Your task to perform on an android device: turn off notifications settings in the gmail app Image 0: 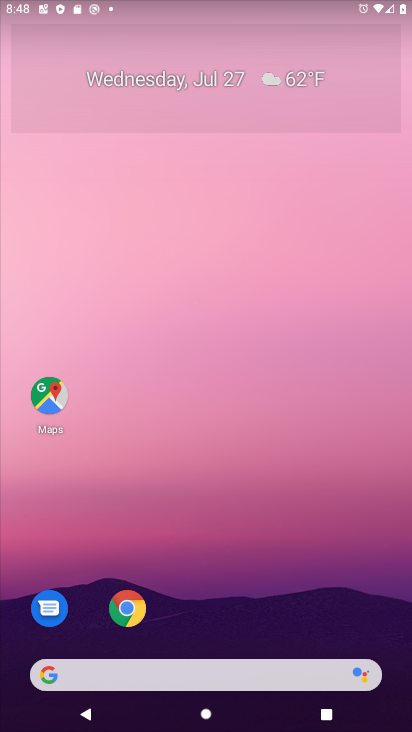
Step 0: drag from (253, 575) to (298, 1)
Your task to perform on an android device: turn off notifications settings in the gmail app Image 1: 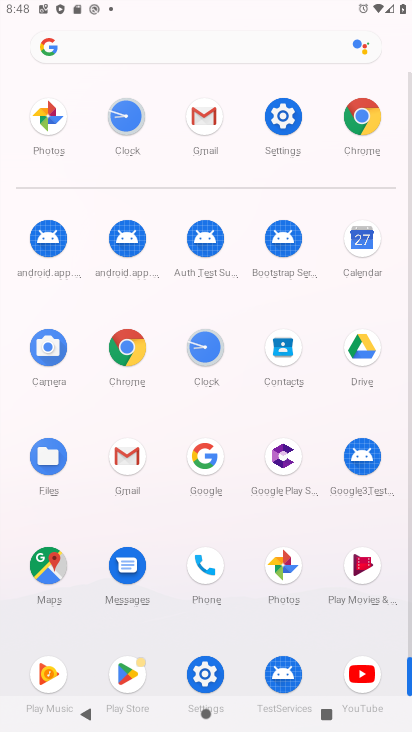
Step 1: click (202, 126)
Your task to perform on an android device: turn off notifications settings in the gmail app Image 2: 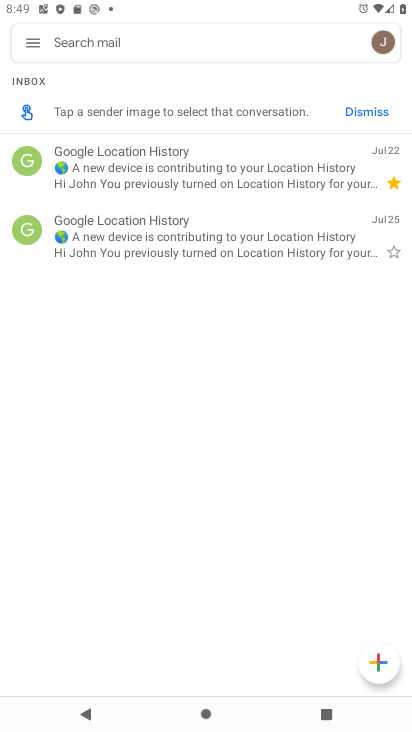
Step 2: task complete